Your task to perform on an android device: turn pop-ups off in chrome Image 0: 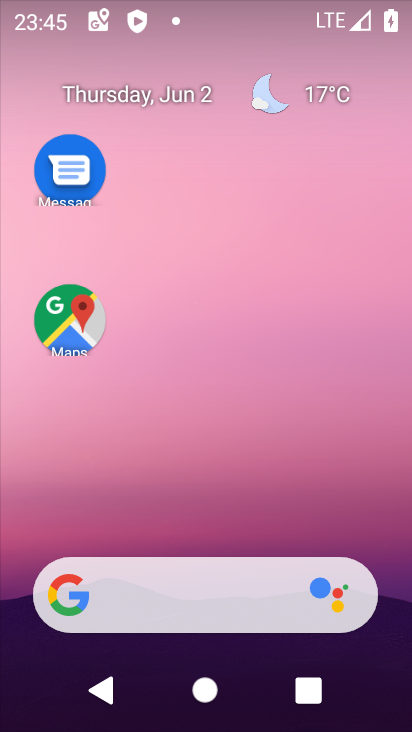
Step 0: press home button
Your task to perform on an android device: turn pop-ups off in chrome Image 1: 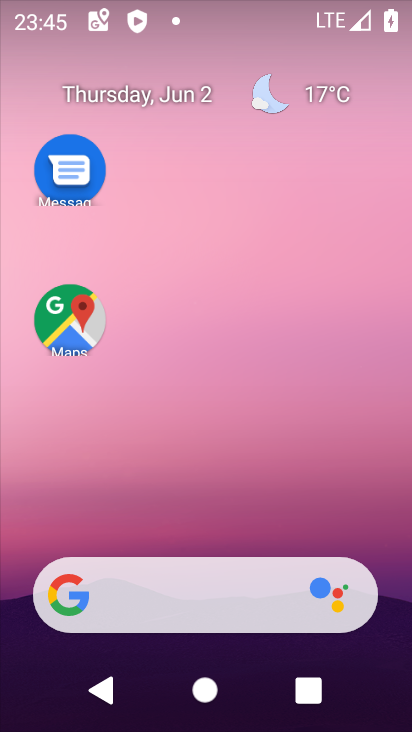
Step 1: drag from (221, 527) to (200, 15)
Your task to perform on an android device: turn pop-ups off in chrome Image 2: 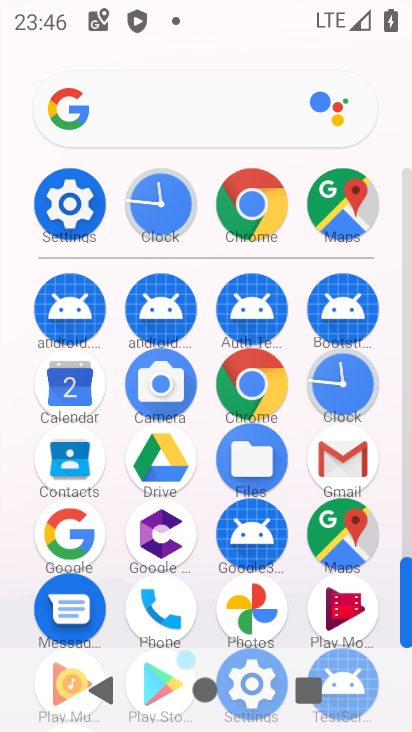
Step 2: click (247, 212)
Your task to perform on an android device: turn pop-ups off in chrome Image 3: 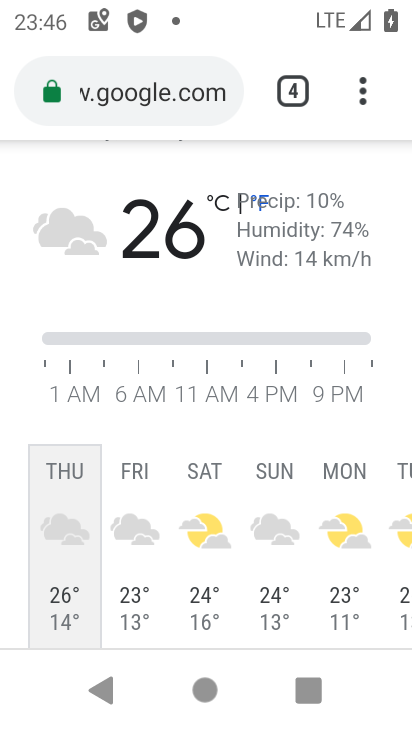
Step 3: drag from (353, 85) to (98, 597)
Your task to perform on an android device: turn pop-ups off in chrome Image 4: 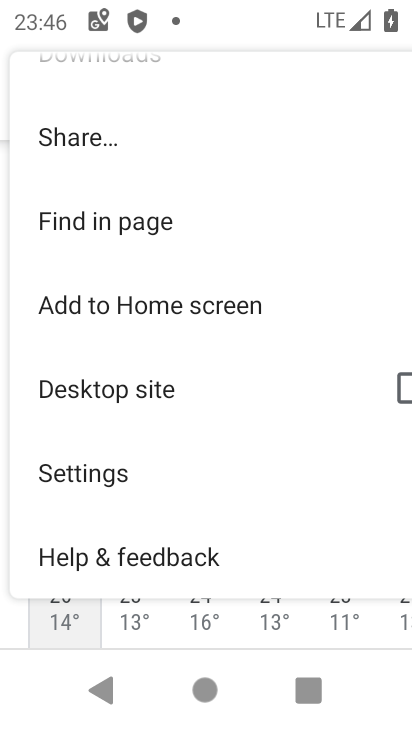
Step 4: click (98, 597)
Your task to perform on an android device: turn pop-ups off in chrome Image 5: 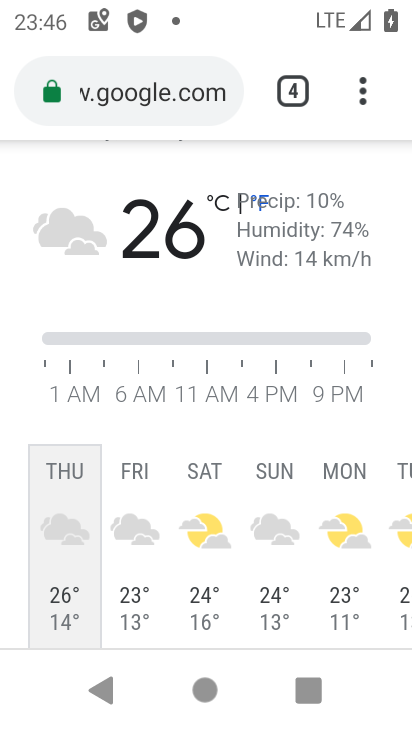
Step 5: click (98, 597)
Your task to perform on an android device: turn pop-ups off in chrome Image 6: 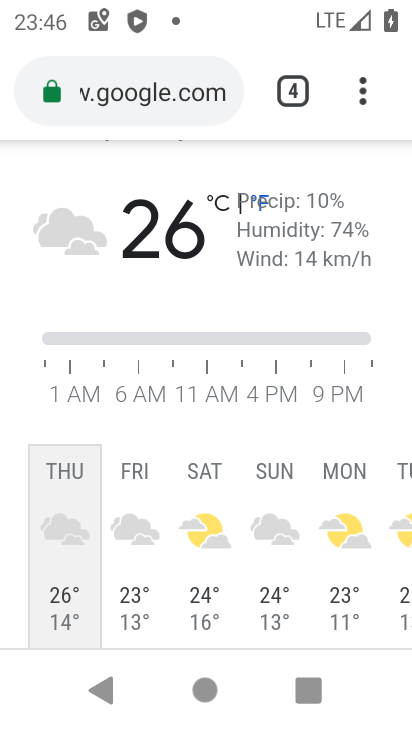
Step 6: click (98, 597)
Your task to perform on an android device: turn pop-ups off in chrome Image 7: 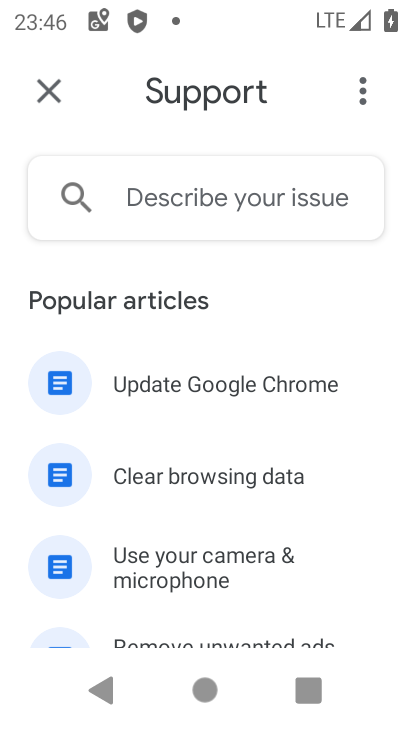
Step 7: press back button
Your task to perform on an android device: turn pop-ups off in chrome Image 8: 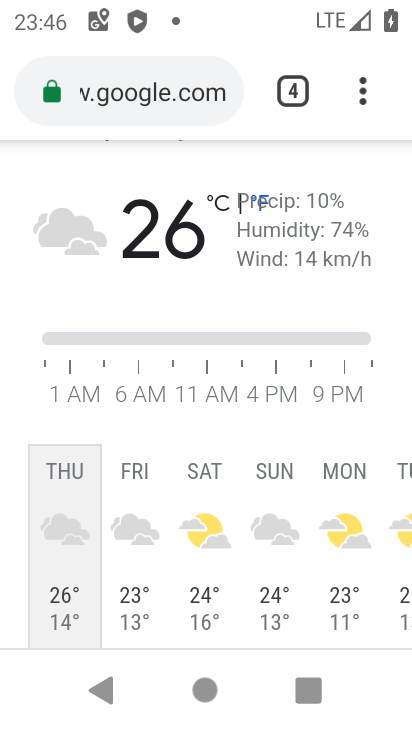
Step 8: drag from (363, 89) to (136, 485)
Your task to perform on an android device: turn pop-ups off in chrome Image 9: 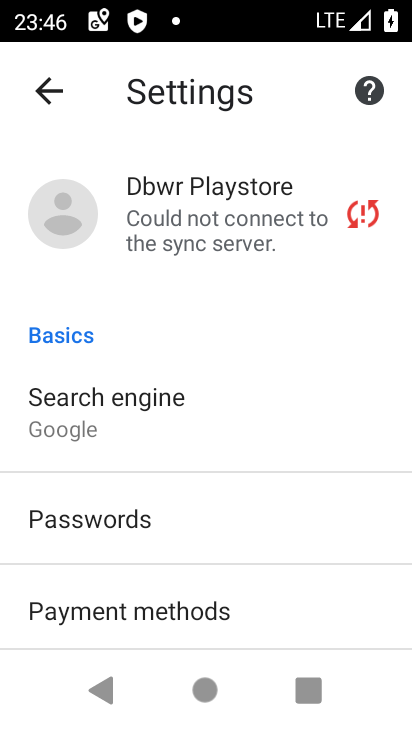
Step 9: drag from (273, 614) to (136, 48)
Your task to perform on an android device: turn pop-ups off in chrome Image 10: 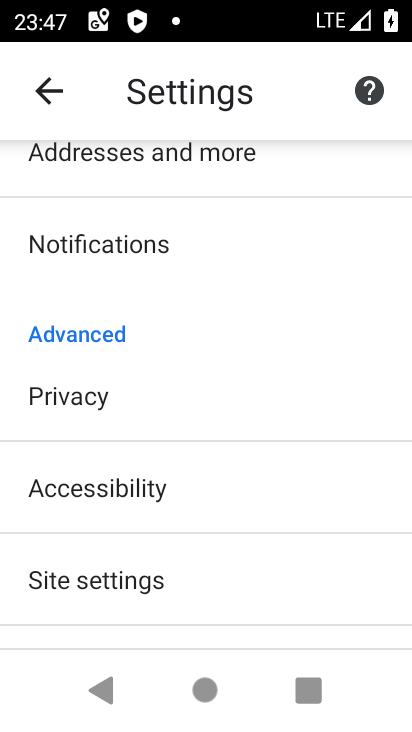
Step 10: click (237, 581)
Your task to perform on an android device: turn pop-ups off in chrome Image 11: 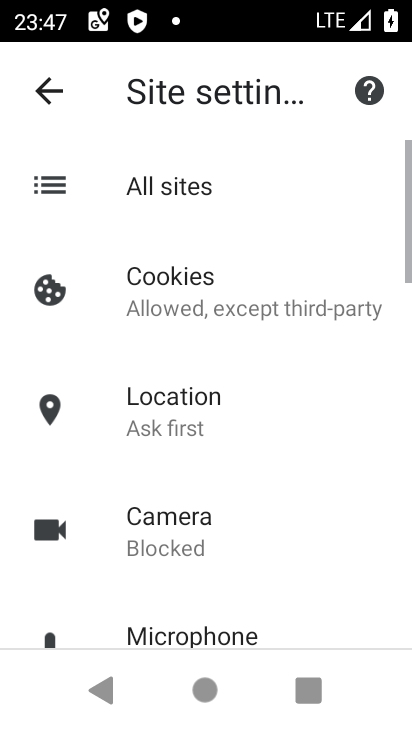
Step 11: drag from (247, 555) to (203, 175)
Your task to perform on an android device: turn pop-ups off in chrome Image 12: 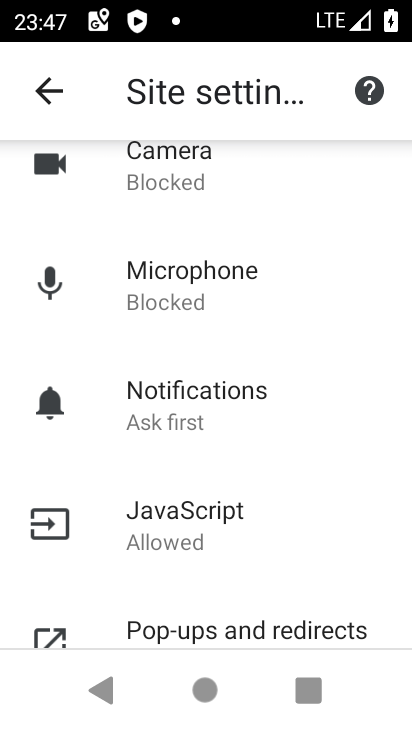
Step 12: click (253, 617)
Your task to perform on an android device: turn pop-ups off in chrome Image 13: 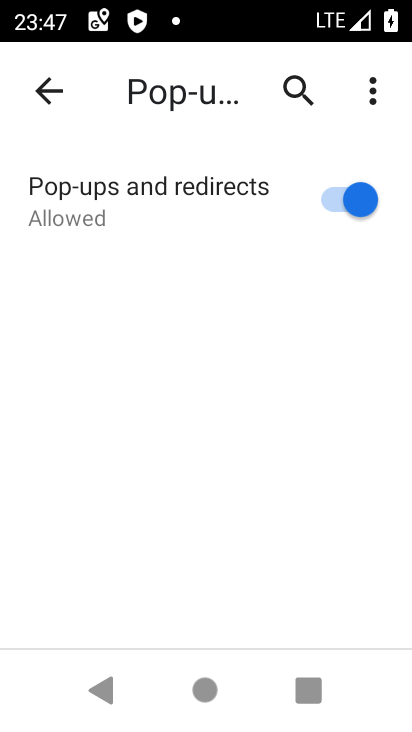
Step 13: click (219, 222)
Your task to perform on an android device: turn pop-ups off in chrome Image 14: 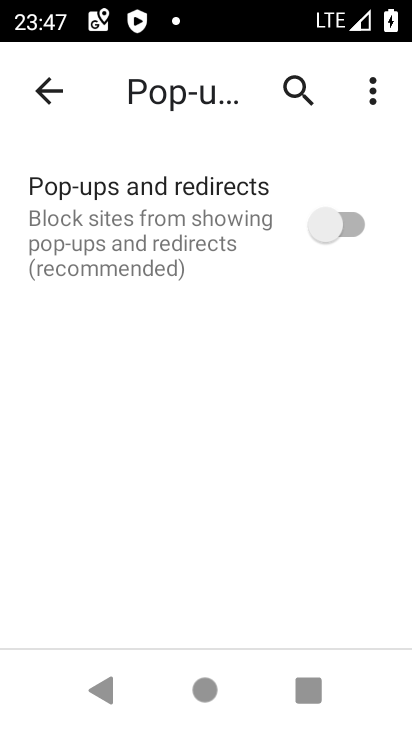
Step 14: task complete